Your task to perform on an android device: Apply the label 'do not share' to all emails from 'tau.ajaybrennan.1654798856750@gmail.com' Image 0: 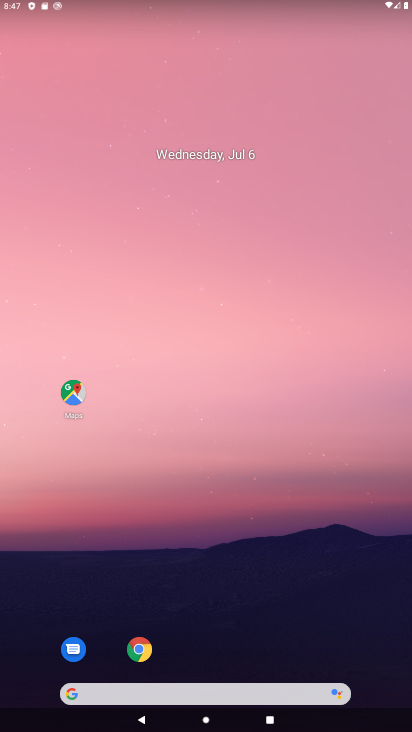
Step 0: drag from (186, 634) to (266, 60)
Your task to perform on an android device: Apply the label 'do not share' to all emails from 'tau.ajaybrennan.1654798856750@gmail.com' Image 1: 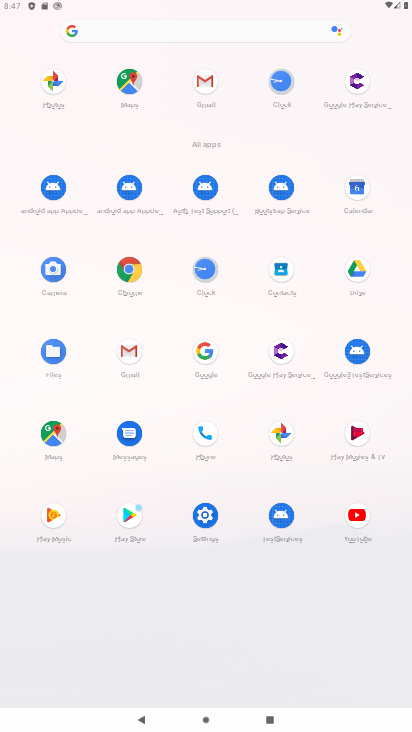
Step 1: click (196, 94)
Your task to perform on an android device: Apply the label 'do not share' to all emails from 'tau.ajaybrennan.1654798856750@gmail.com' Image 2: 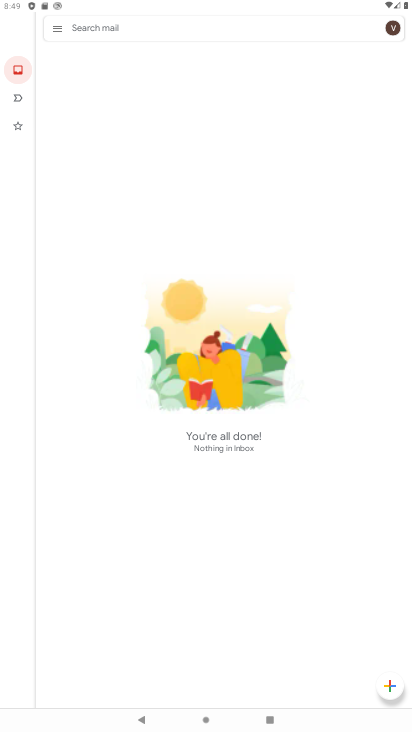
Step 2: task complete